Your task to perform on an android device: change the clock display to show seconds Image 0: 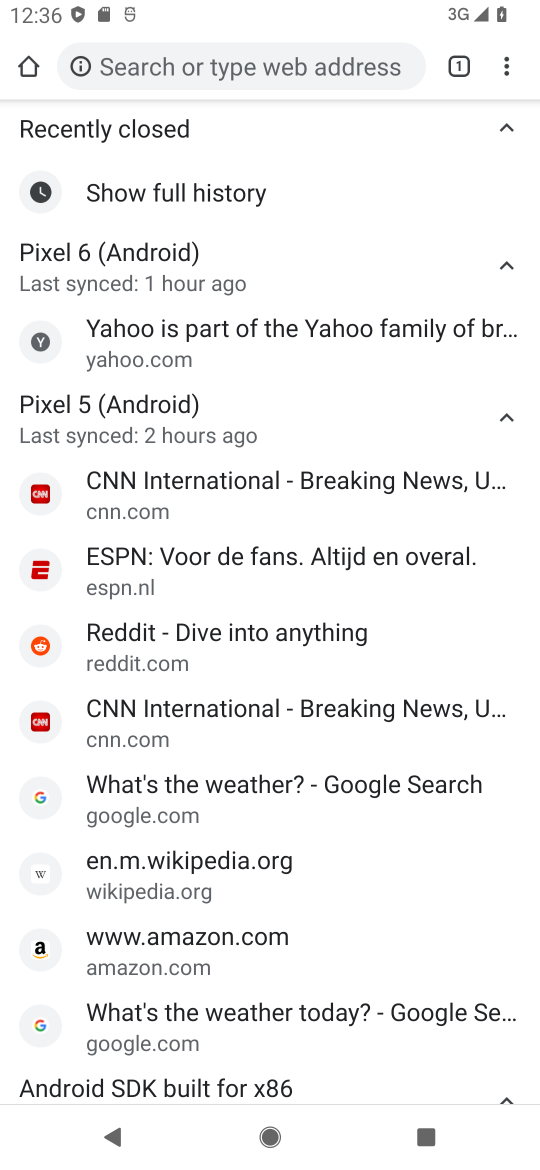
Step 0: press home button
Your task to perform on an android device: change the clock display to show seconds Image 1: 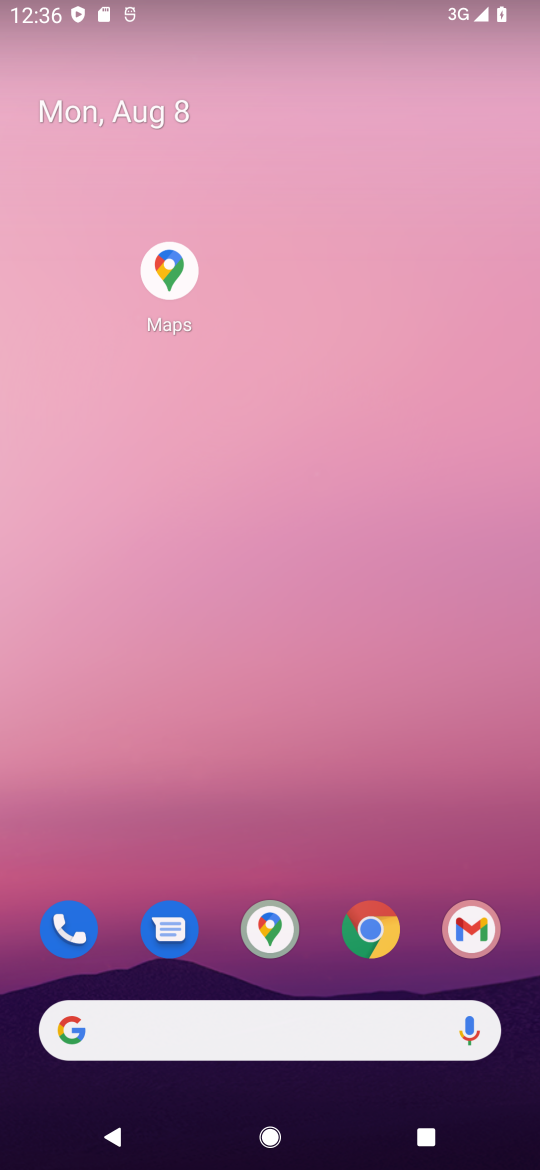
Step 1: press home button
Your task to perform on an android device: change the clock display to show seconds Image 2: 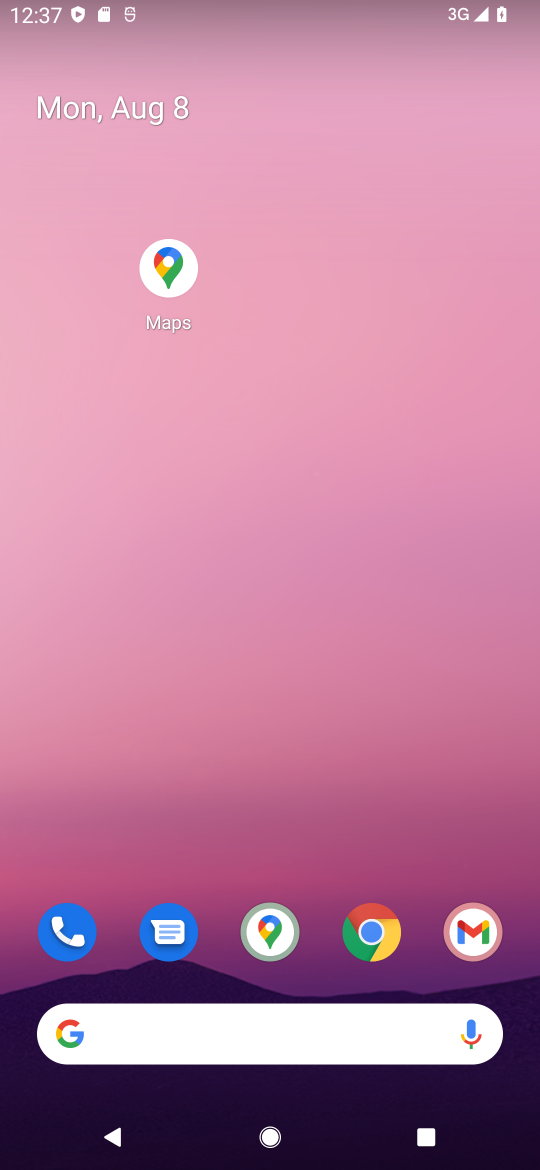
Step 2: drag from (279, 605) to (314, 126)
Your task to perform on an android device: change the clock display to show seconds Image 3: 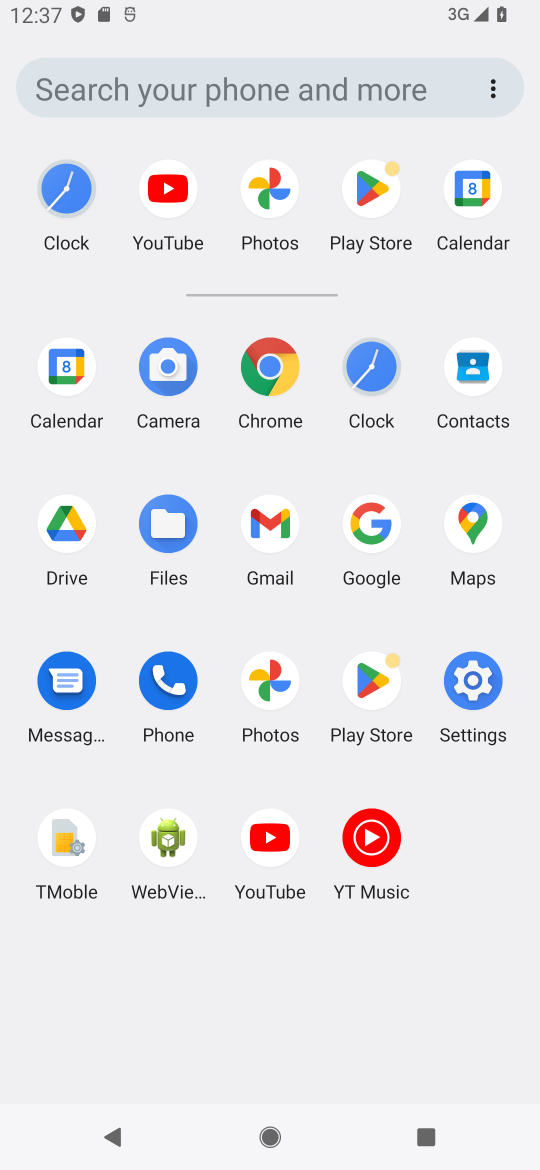
Step 3: click (54, 197)
Your task to perform on an android device: change the clock display to show seconds Image 4: 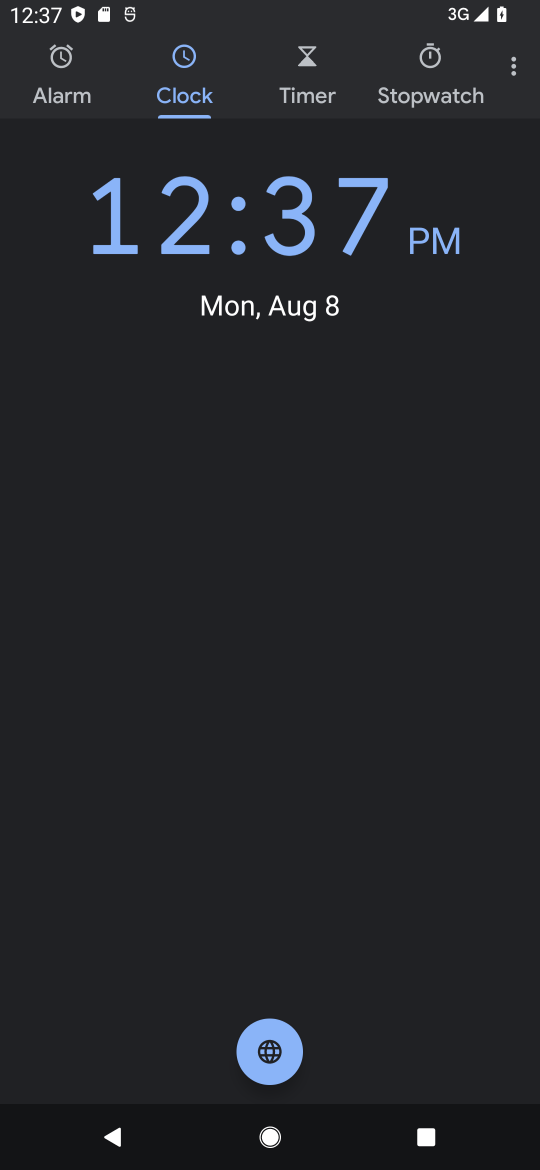
Step 4: click (524, 72)
Your task to perform on an android device: change the clock display to show seconds Image 5: 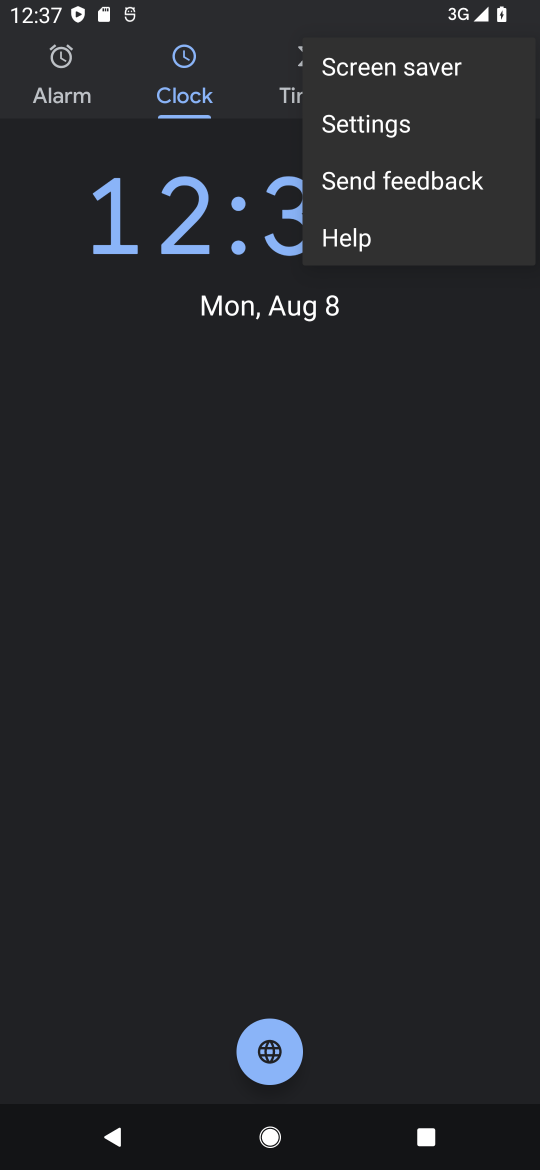
Step 5: click (457, 137)
Your task to perform on an android device: change the clock display to show seconds Image 6: 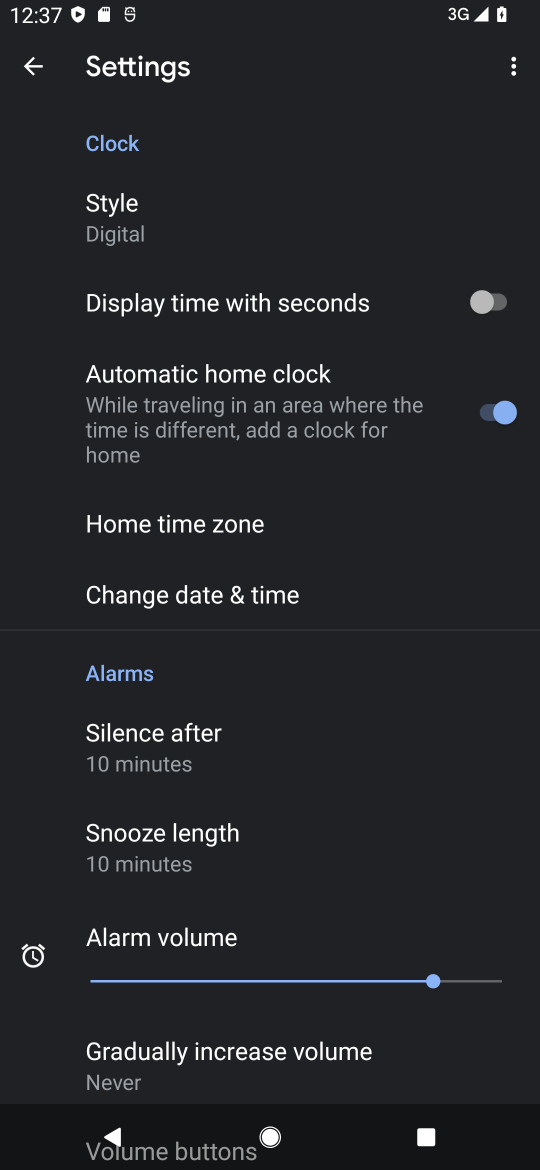
Step 6: click (493, 310)
Your task to perform on an android device: change the clock display to show seconds Image 7: 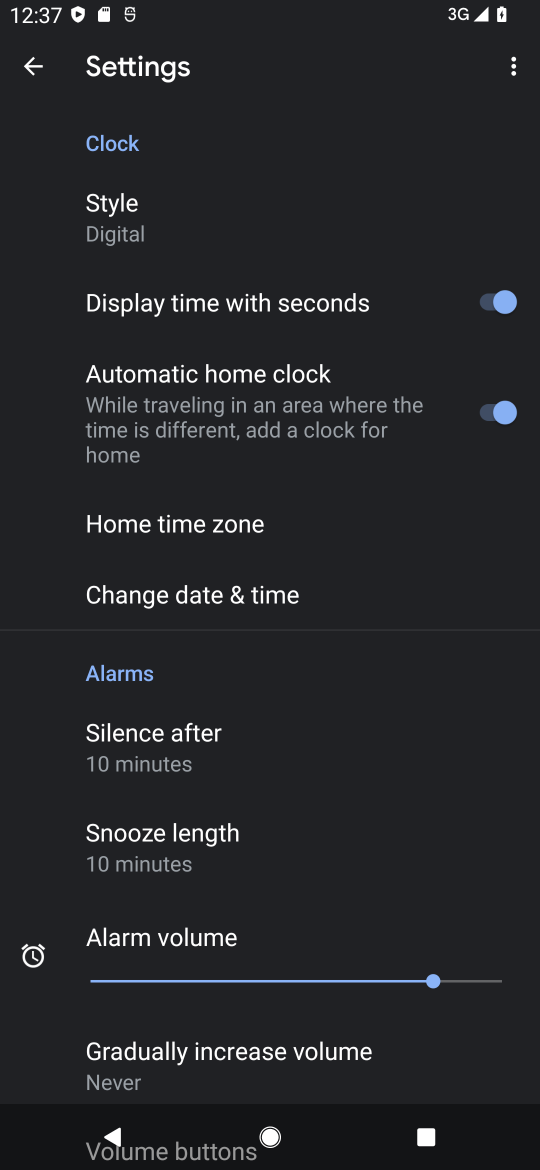
Step 7: task complete